Your task to perform on an android device: Open Chrome and go to settings Image 0: 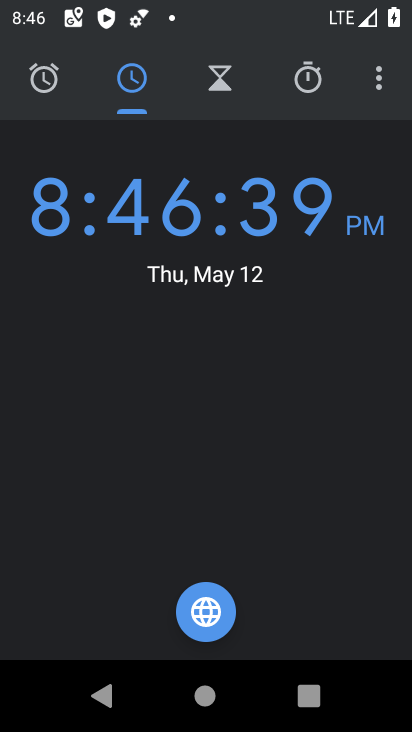
Step 0: press home button
Your task to perform on an android device: Open Chrome and go to settings Image 1: 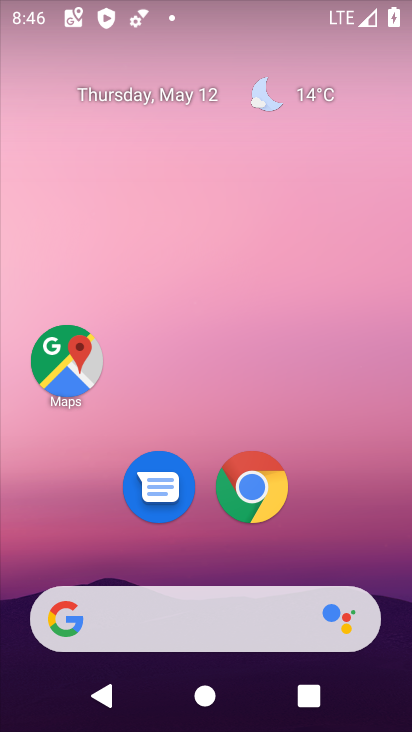
Step 1: click (259, 474)
Your task to perform on an android device: Open Chrome and go to settings Image 2: 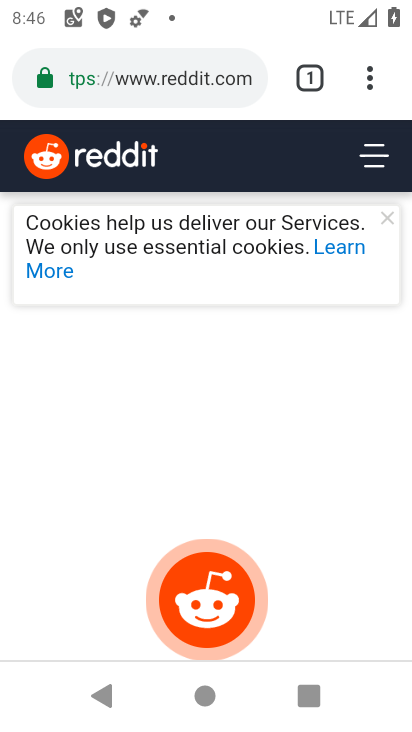
Step 2: click (364, 89)
Your task to perform on an android device: Open Chrome and go to settings Image 3: 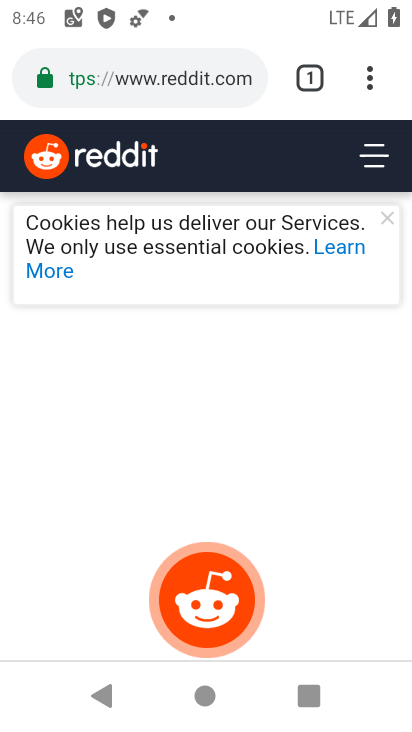
Step 3: click (358, 82)
Your task to perform on an android device: Open Chrome and go to settings Image 4: 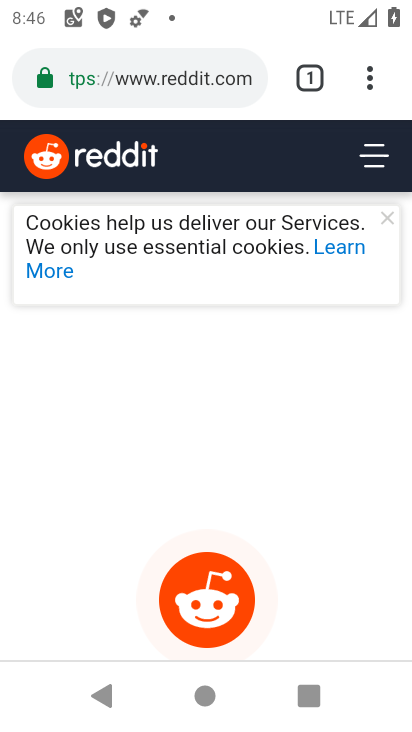
Step 4: click (355, 86)
Your task to perform on an android device: Open Chrome and go to settings Image 5: 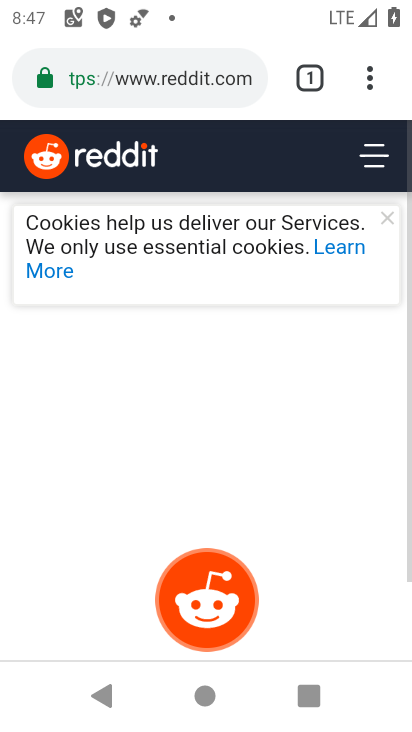
Step 5: click (368, 77)
Your task to perform on an android device: Open Chrome and go to settings Image 6: 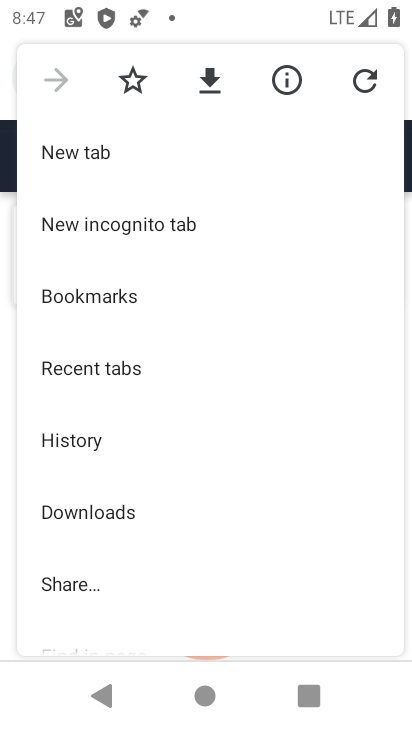
Step 6: drag from (96, 606) to (231, 109)
Your task to perform on an android device: Open Chrome and go to settings Image 7: 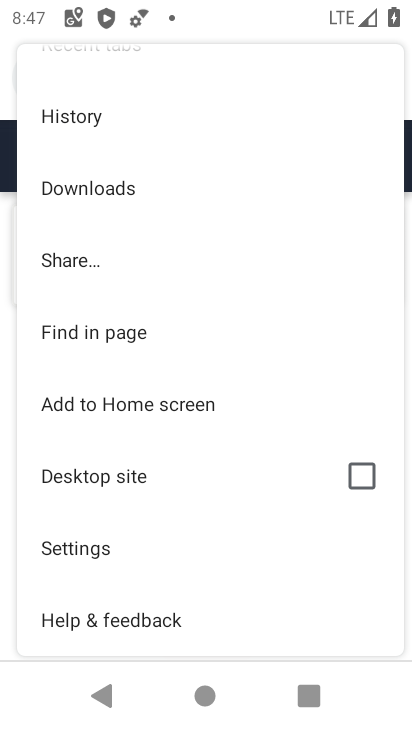
Step 7: click (85, 544)
Your task to perform on an android device: Open Chrome and go to settings Image 8: 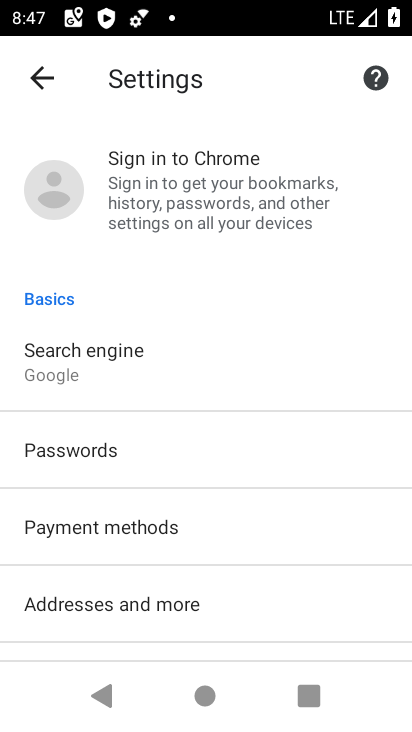
Step 8: task complete